Your task to perform on an android device: Open display settings Image 0: 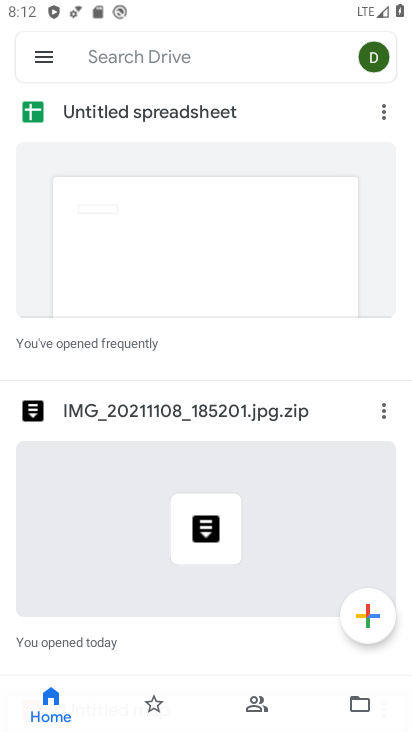
Step 0: press back button
Your task to perform on an android device: Open display settings Image 1: 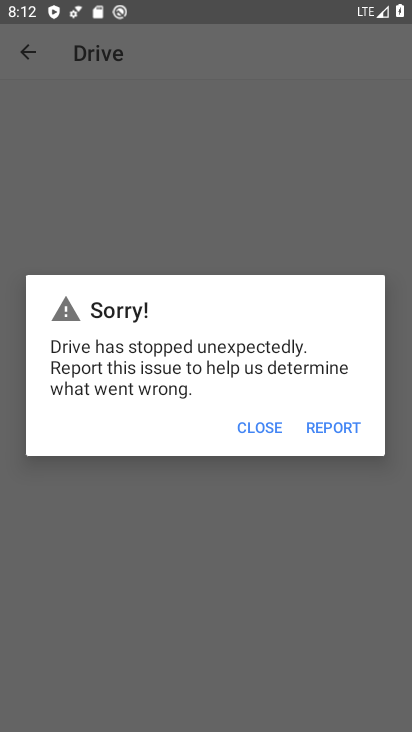
Step 1: press back button
Your task to perform on an android device: Open display settings Image 2: 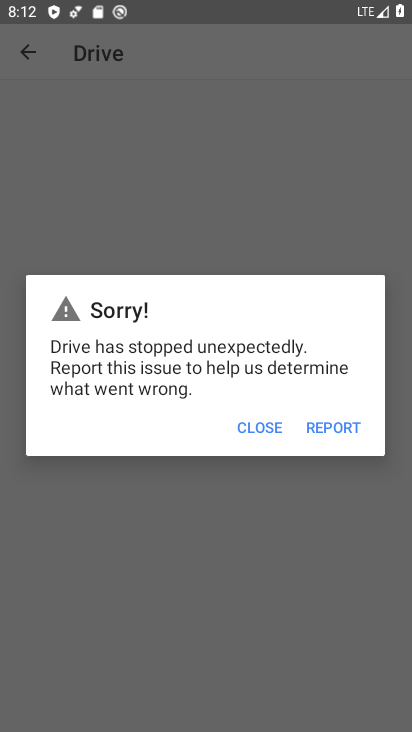
Step 2: press home button
Your task to perform on an android device: Open display settings Image 3: 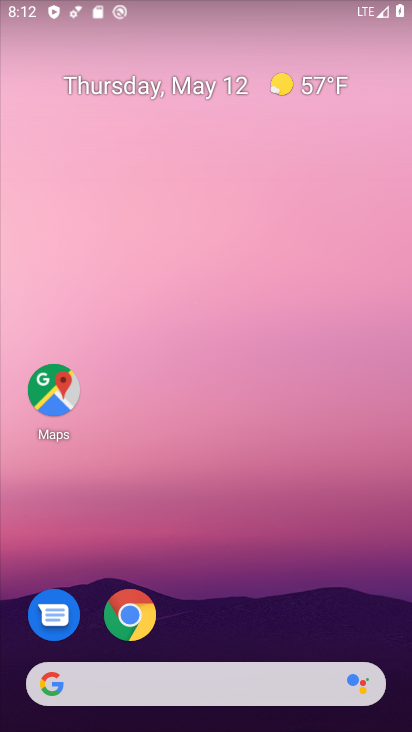
Step 3: drag from (243, 580) to (192, 19)
Your task to perform on an android device: Open display settings Image 4: 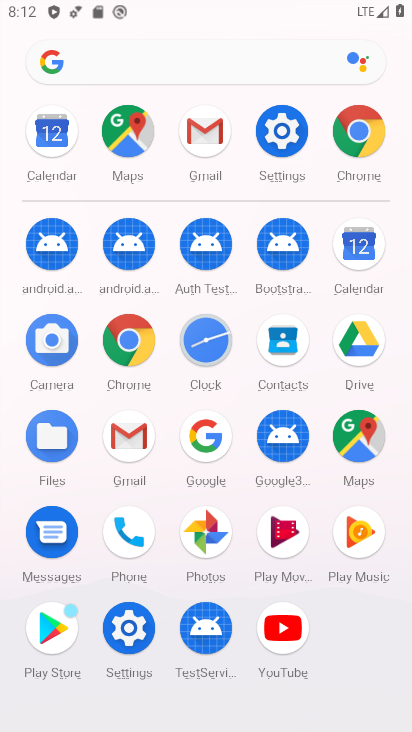
Step 4: drag from (11, 590) to (8, 327)
Your task to perform on an android device: Open display settings Image 5: 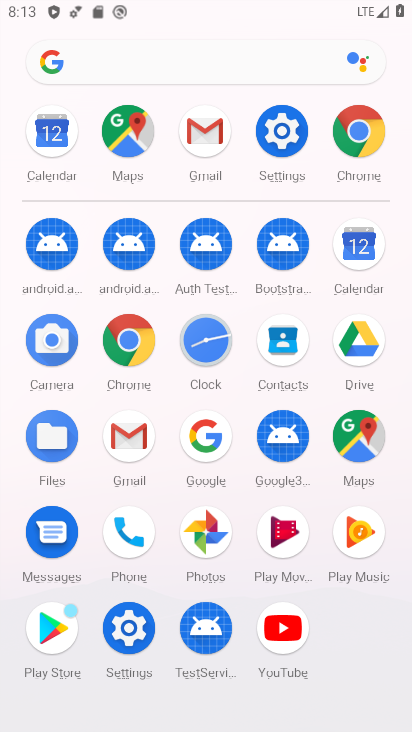
Step 5: click (125, 629)
Your task to perform on an android device: Open display settings Image 6: 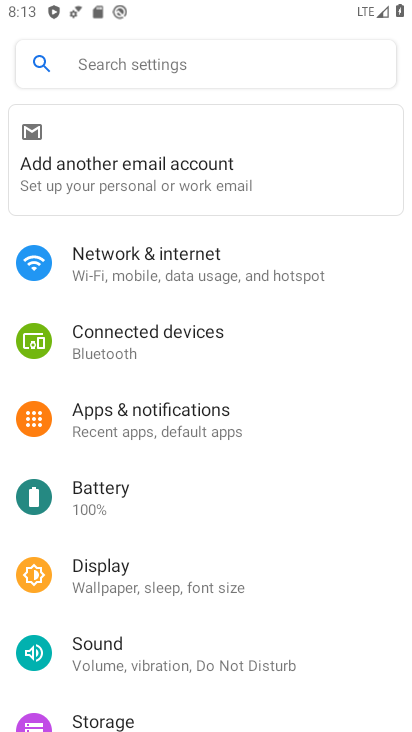
Step 6: click (115, 581)
Your task to perform on an android device: Open display settings Image 7: 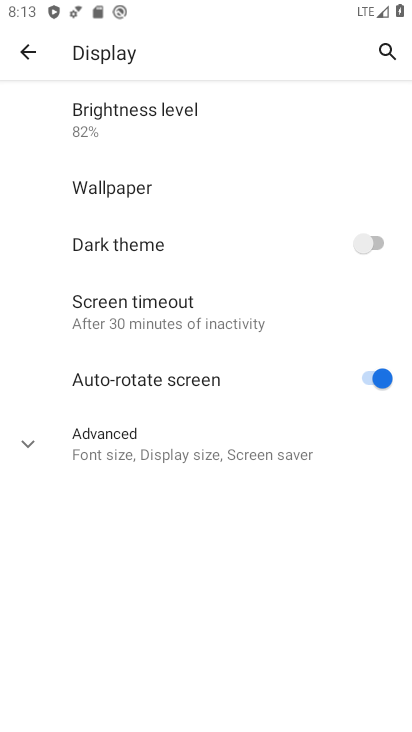
Step 7: click (60, 442)
Your task to perform on an android device: Open display settings Image 8: 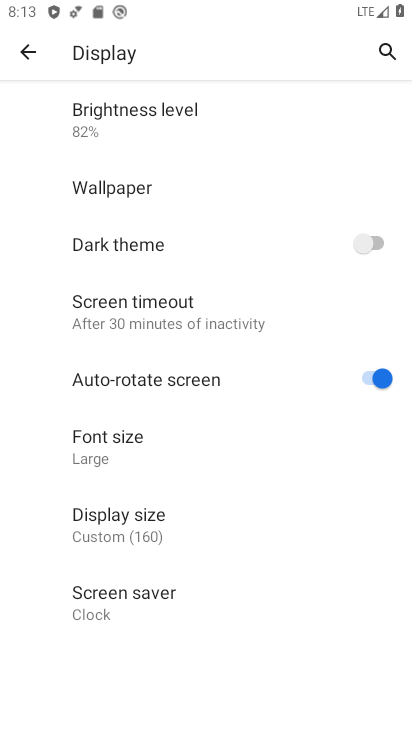
Step 8: task complete